Your task to perform on an android device: create a new album in the google photos Image 0: 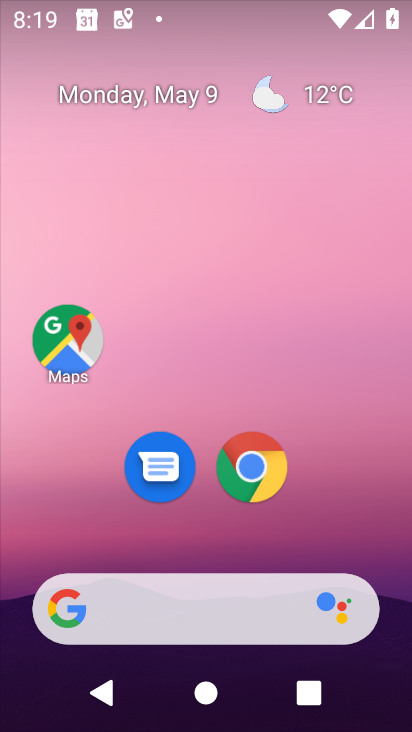
Step 0: drag from (358, 558) to (304, 18)
Your task to perform on an android device: create a new album in the google photos Image 1: 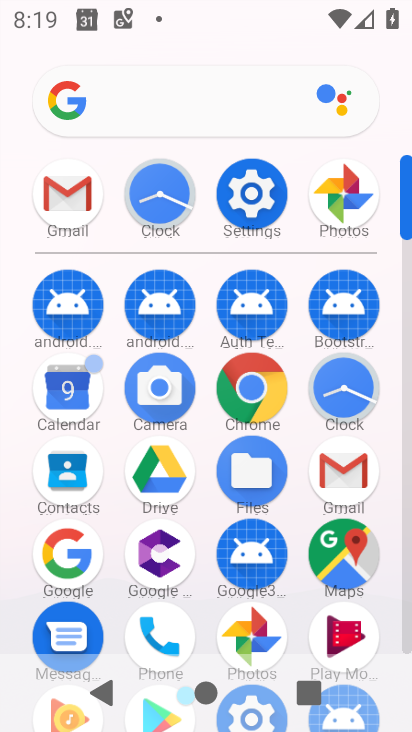
Step 1: click (345, 197)
Your task to perform on an android device: create a new album in the google photos Image 2: 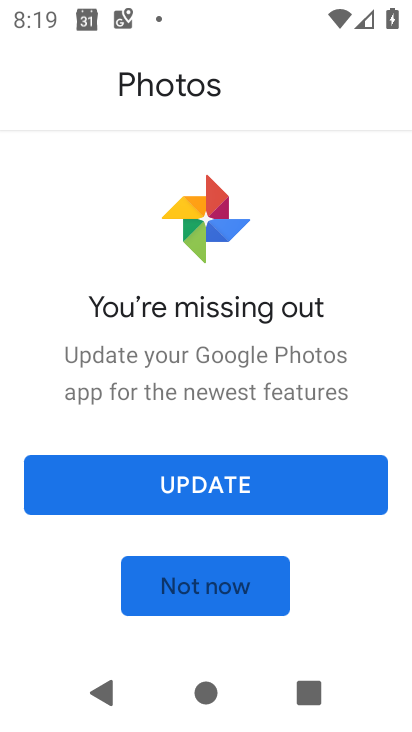
Step 2: click (206, 485)
Your task to perform on an android device: create a new album in the google photos Image 3: 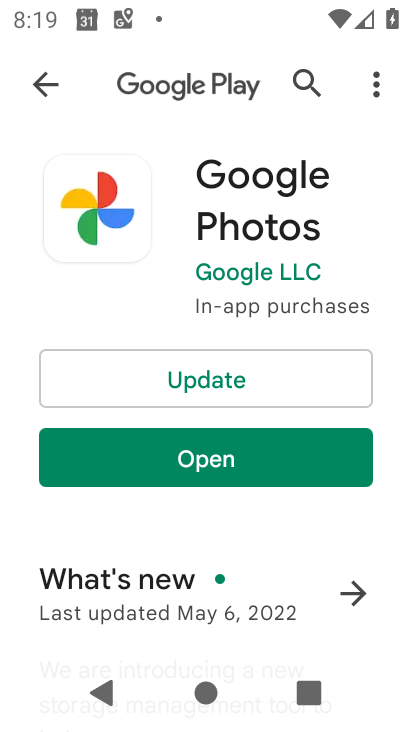
Step 3: click (206, 460)
Your task to perform on an android device: create a new album in the google photos Image 4: 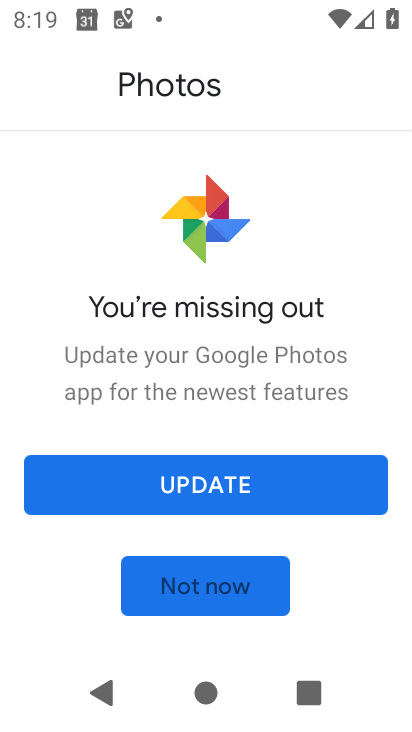
Step 4: click (221, 579)
Your task to perform on an android device: create a new album in the google photos Image 5: 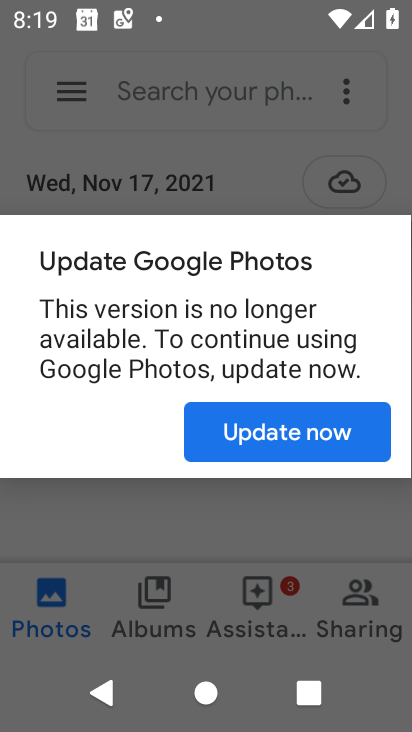
Step 5: click (226, 440)
Your task to perform on an android device: create a new album in the google photos Image 6: 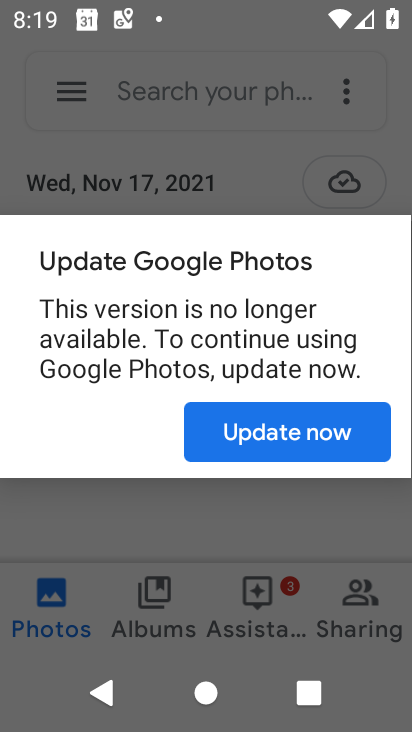
Step 6: click (287, 441)
Your task to perform on an android device: create a new album in the google photos Image 7: 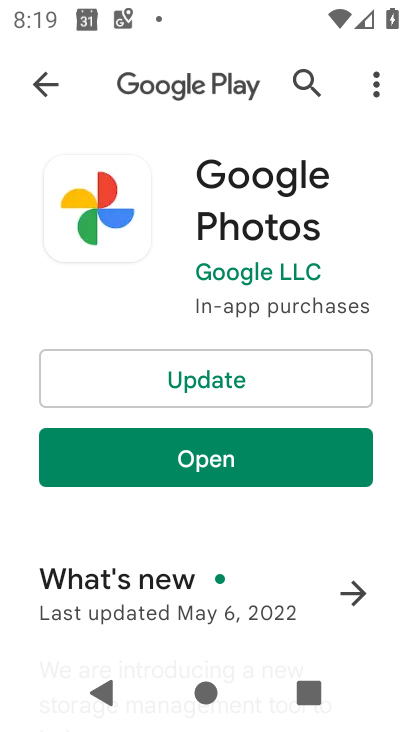
Step 7: click (239, 452)
Your task to perform on an android device: create a new album in the google photos Image 8: 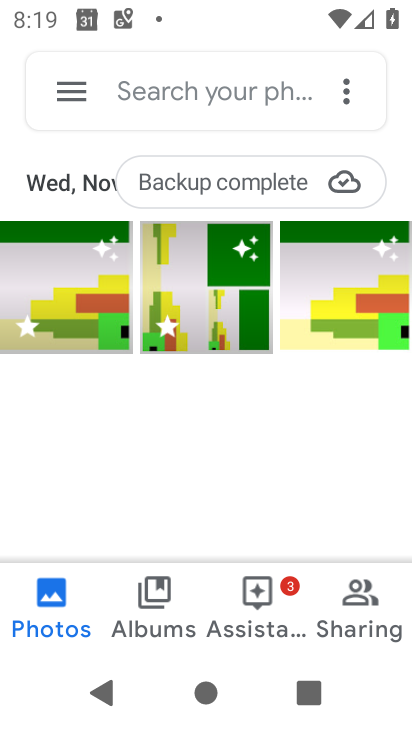
Step 8: click (85, 303)
Your task to perform on an android device: create a new album in the google photos Image 9: 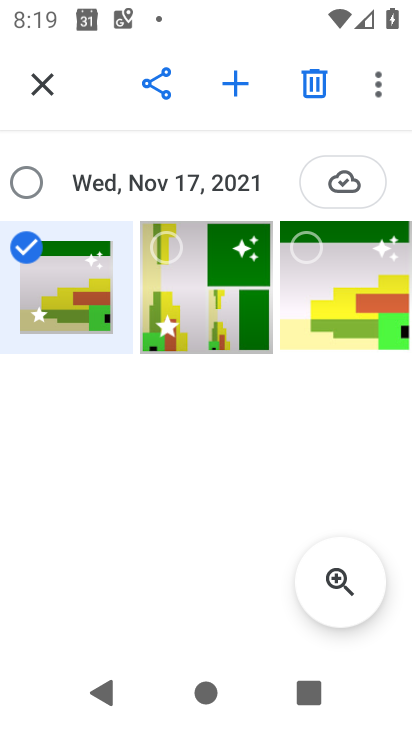
Step 9: click (242, 76)
Your task to perform on an android device: create a new album in the google photos Image 10: 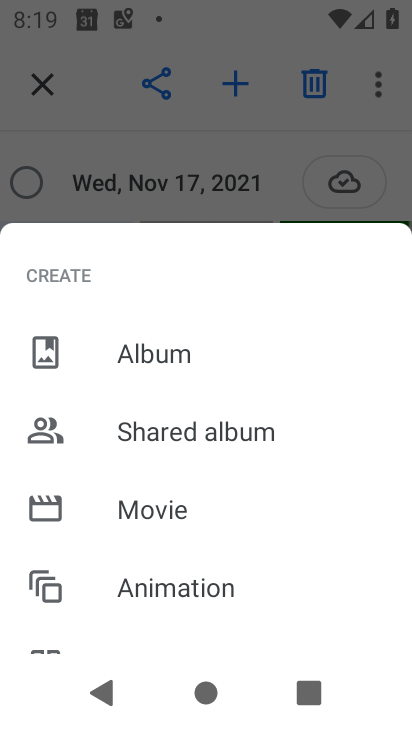
Step 10: click (141, 359)
Your task to perform on an android device: create a new album in the google photos Image 11: 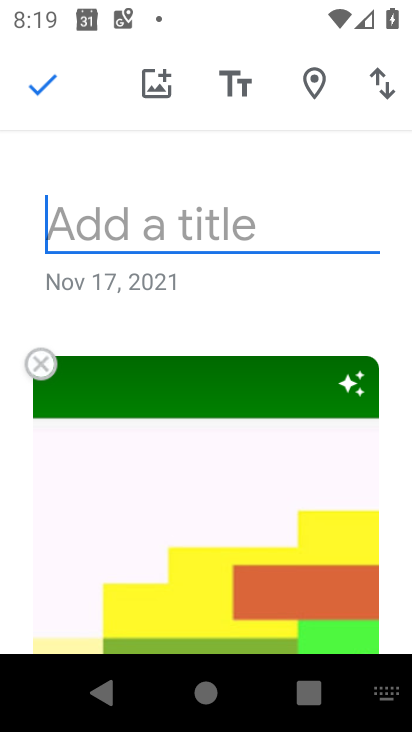
Step 11: click (121, 229)
Your task to perform on an android device: create a new album in the google photos Image 12: 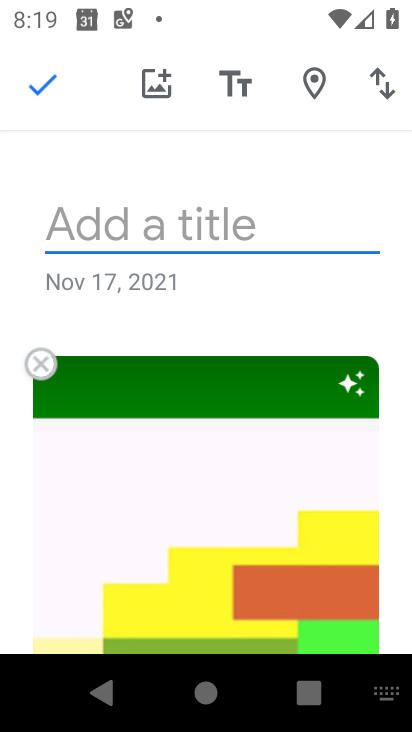
Step 12: type "testing "
Your task to perform on an android device: create a new album in the google photos Image 13: 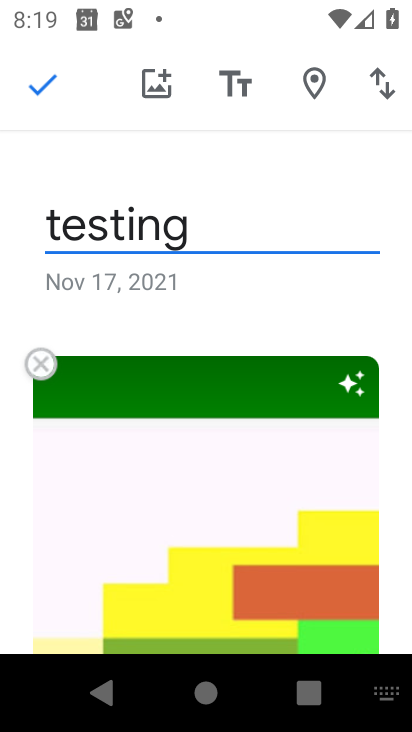
Step 13: click (39, 89)
Your task to perform on an android device: create a new album in the google photos Image 14: 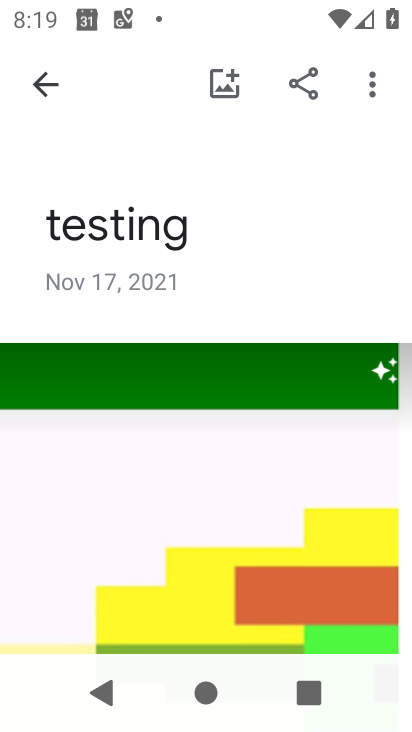
Step 14: task complete